Your task to perform on an android device: snooze an email in the gmail app Image 0: 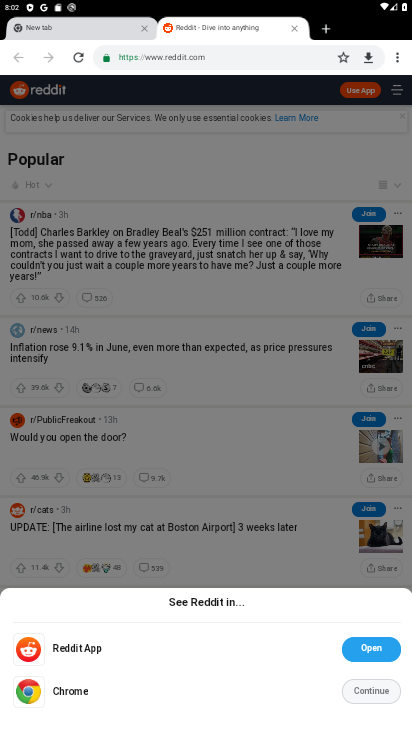
Step 0: press home button
Your task to perform on an android device: snooze an email in the gmail app Image 1: 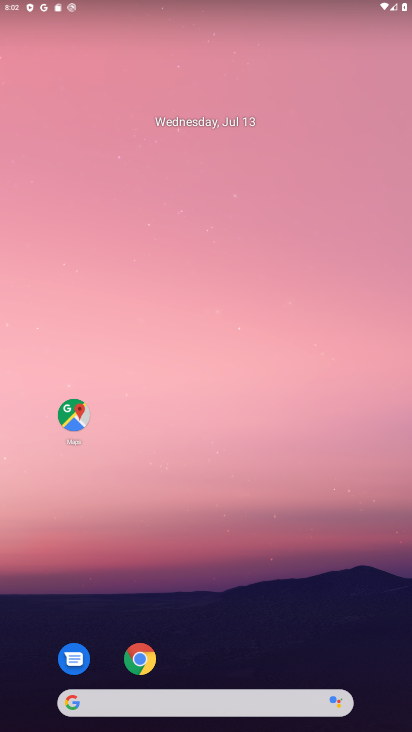
Step 1: drag from (218, 662) to (221, 111)
Your task to perform on an android device: snooze an email in the gmail app Image 2: 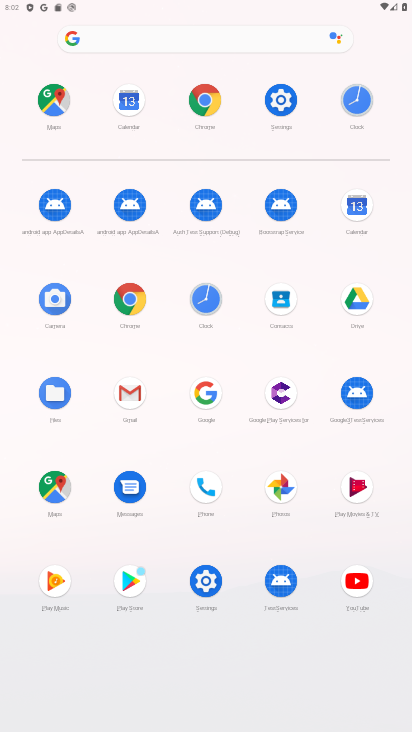
Step 2: click (129, 399)
Your task to perform on an android device: snooze an email in the gmail app Image 3: 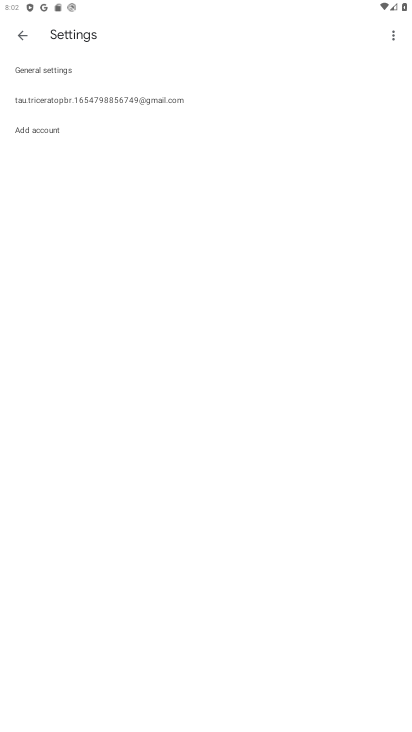
Step 3: click (26, 31)
Your task to perform on an android device: snooze an email in the gmail app Image 4: 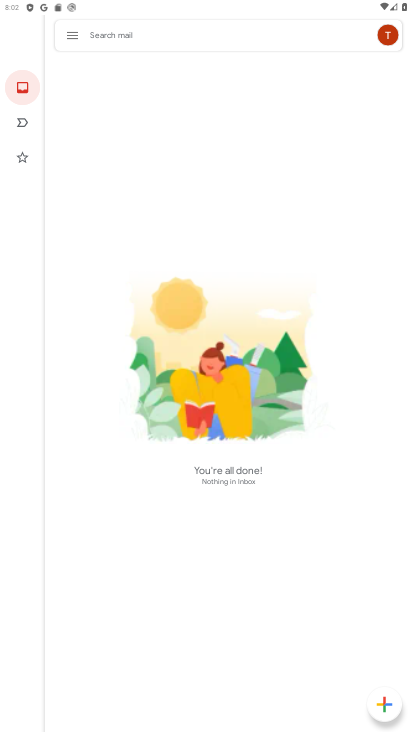
Step 4: click (68, 41)
Your task to perform on an android device: snooze an email in the gmail app Image 5: 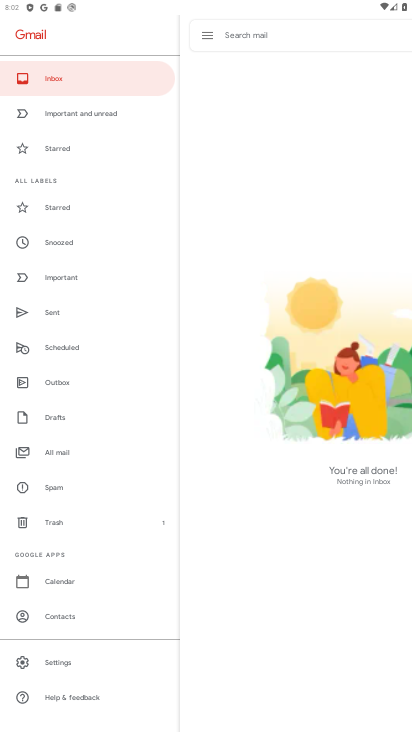
Step 5: click (28, 241)
Your task to perform on an android device: snooze an email in the gmail app Image 6: 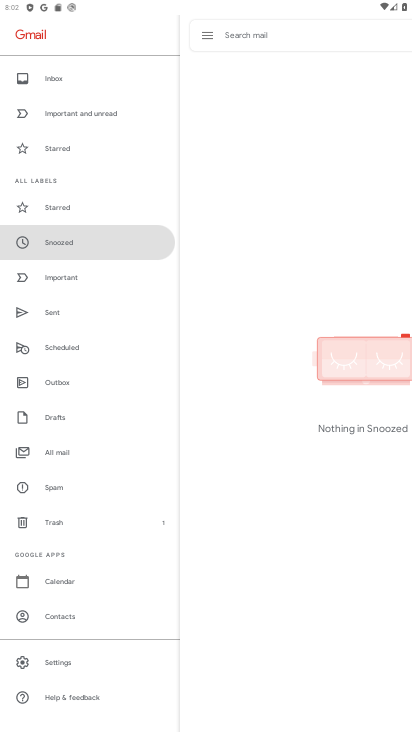
Step 6: task complete